Your task to perform on an android device: open a bookmark in the chrome app Image 0: 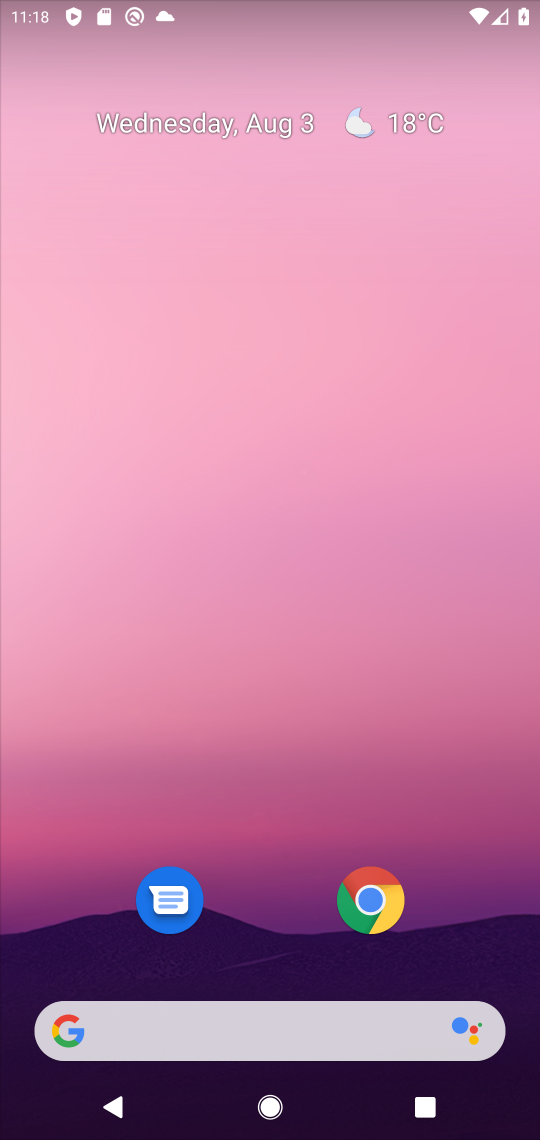
Step 0: press home button
Your task to perform on an android device: open a bookmark in the chrome app Image 1: 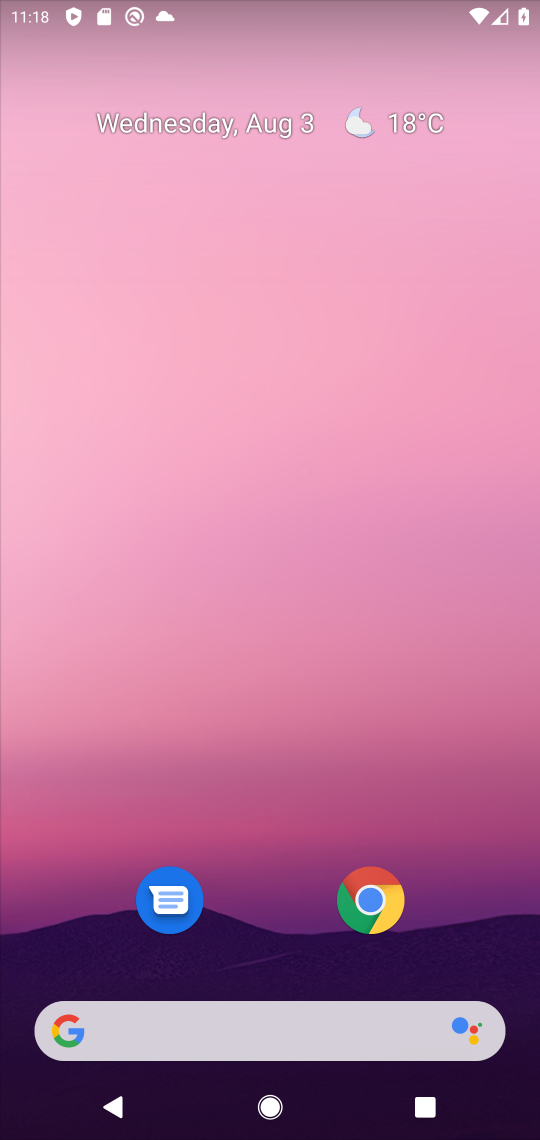
Step 1: click (363, 916)
Your task to perform on an android device: open a bookmark in the chrome app Image 2: 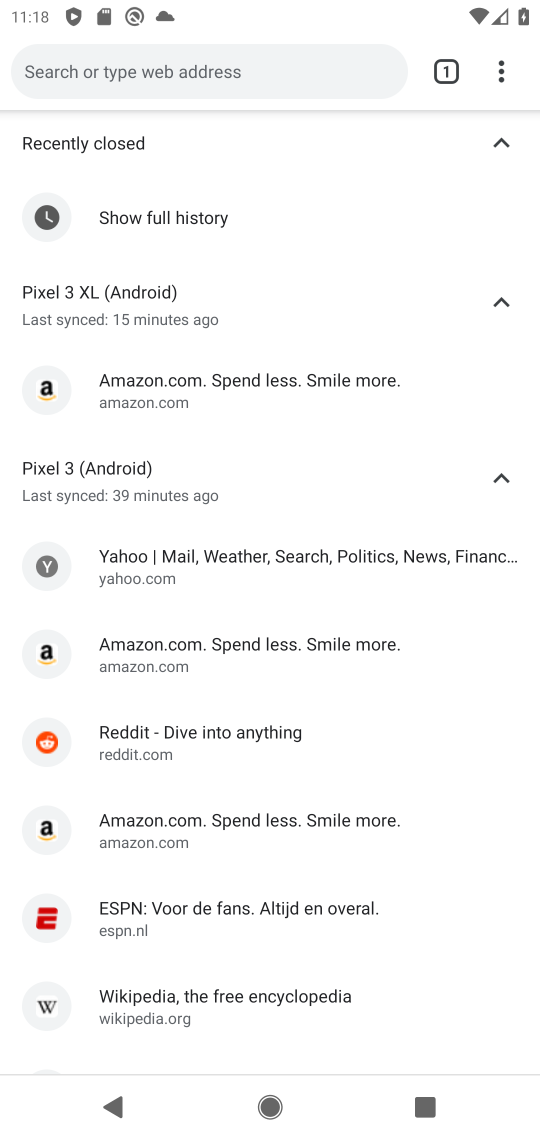
Step 2: task complete